Your task to perform on an android device: turn smart compose on in the gmail app Image 0: 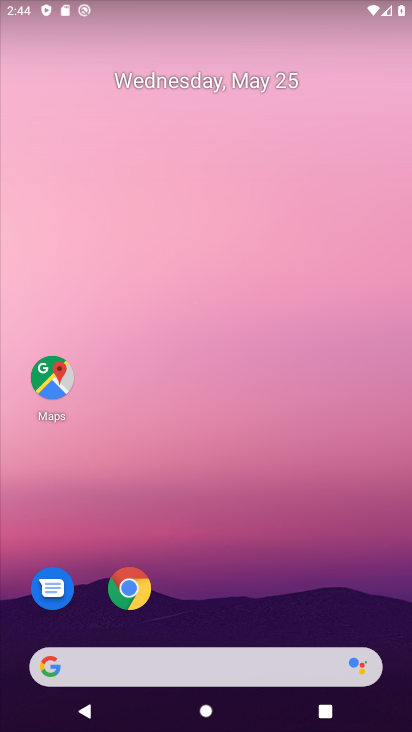
Step 0: press home button
Your task to perform on an android device: turn smart compose on in the gmail app Image 1: 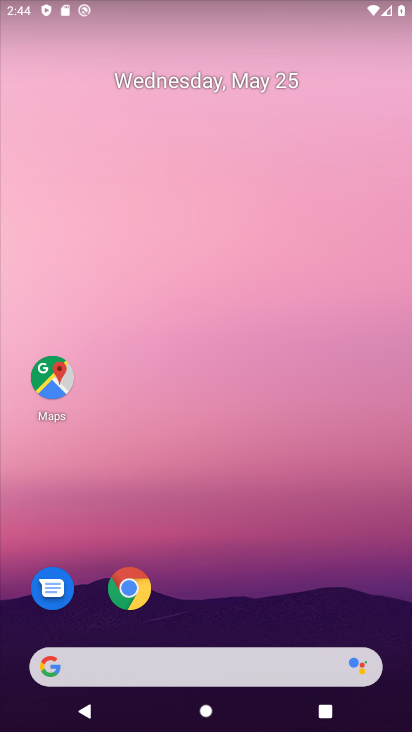
Step 1: drag from (275, 620) to (340, 97)
Your task to perform on an android device: turn smart compose on in the gmail app Image 2: 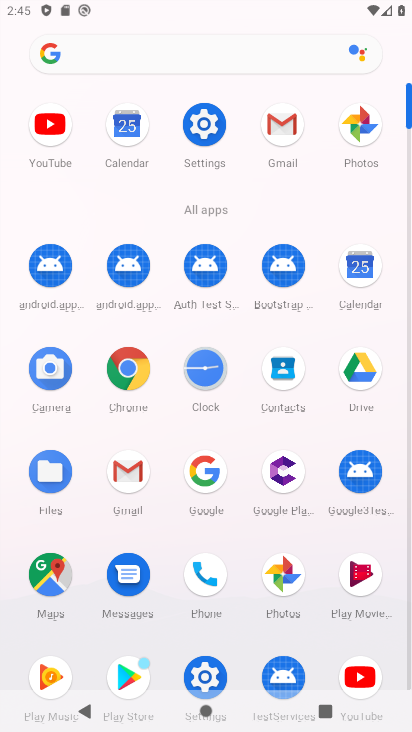
Step 2: click (132, 470)
Your task to perform on an android device: turn smart compose on in the gmail app Image 3: 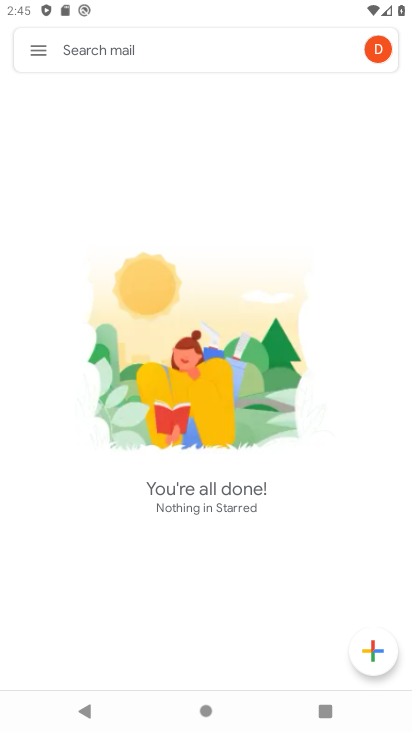
Step 3: click (39, 63)
Your task to perform on an android device: turn smart compose on in the gmail app Image 4: 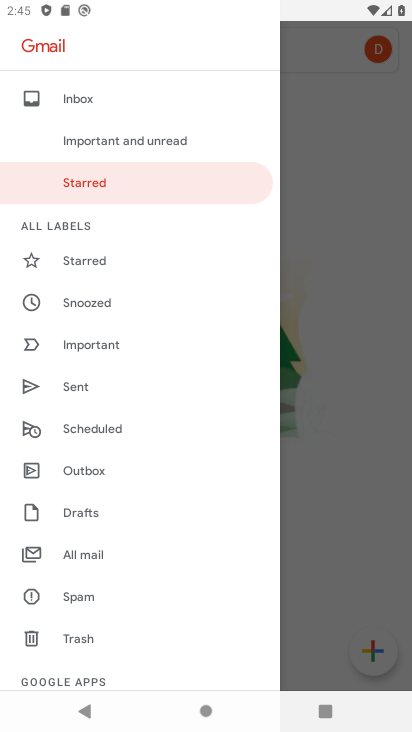
Step 4: drag from (162, 632) to (203, 207)
Your task to perform on an android device: turn smart compose on in the gmail app Image 5: 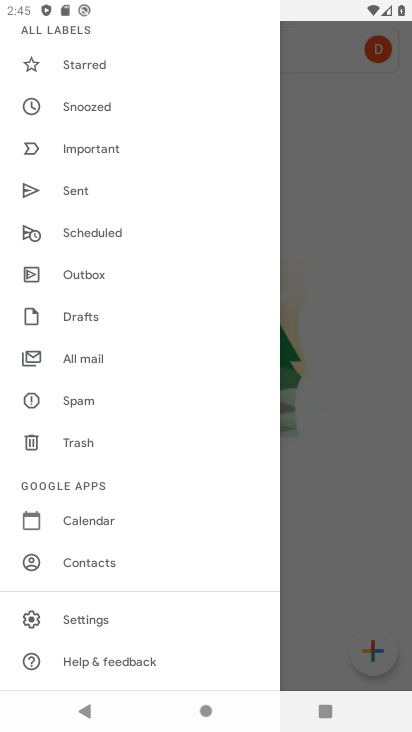
Step 5: click (88, 626)
Your task to perform on an android device: turn smart compose on in the gmail app Image 6: 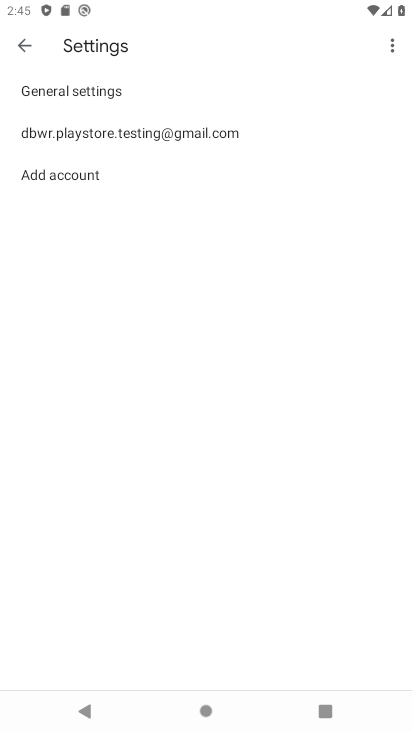
Step 6: click (210, 129)
Your task to perform on an android device: turn smart compose on in the gmail app Image 7: 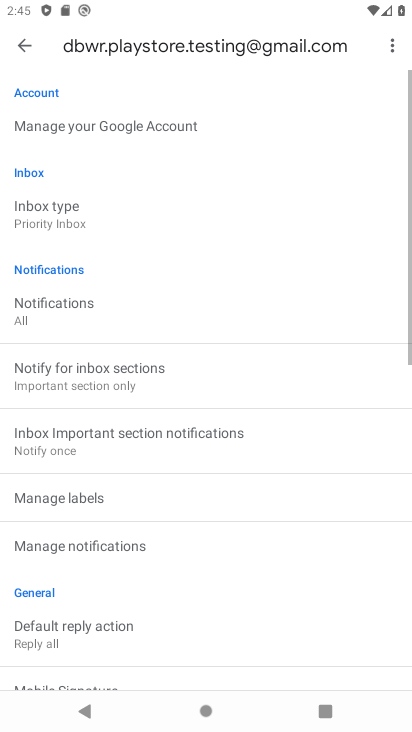
Step 7: task complete